Your task to perform on an android device: change timer sound Image 0: 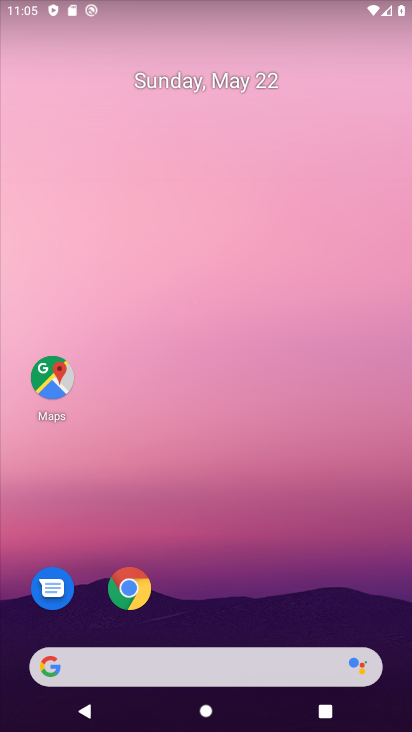
Step 0: drag from (218, 628) to (159, 140)
Your task to perform on an android device: change timer sound Image 1: 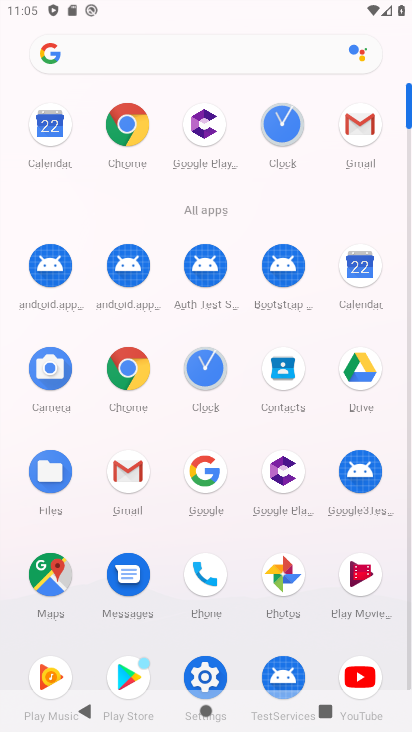
Step 1: click (198, 349)
Your task to perform on an android device: change timer sound Image 2: 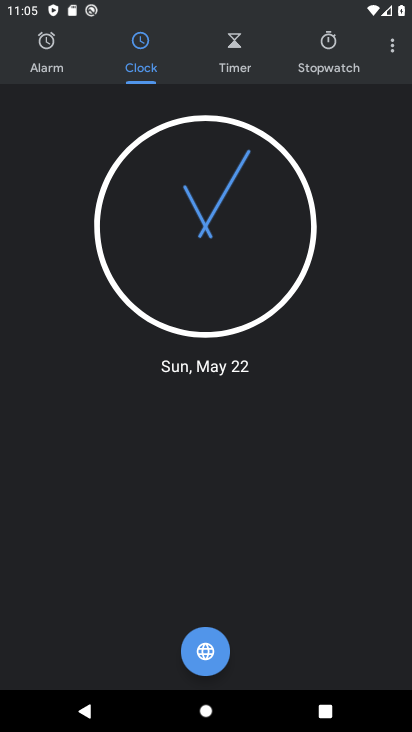
Step 2: click (392, 51)
Your task to perform on an android device: change timer sound Image 3: 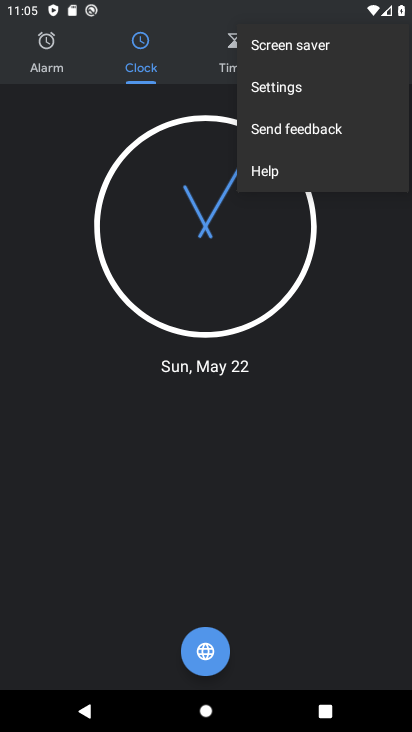
Step 3: click (277, 72)
Your task to perform on an android device: change timer sound Image 4: 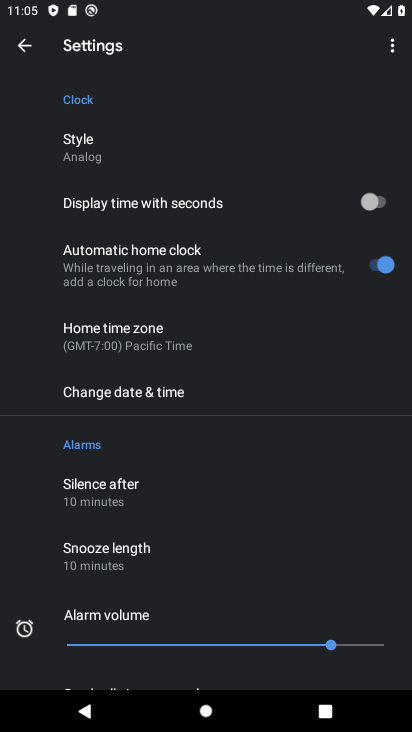
Step 4: drag from (183, 531) to (190, 146)
Your task to perform on an android device: change timer sound Image 5: 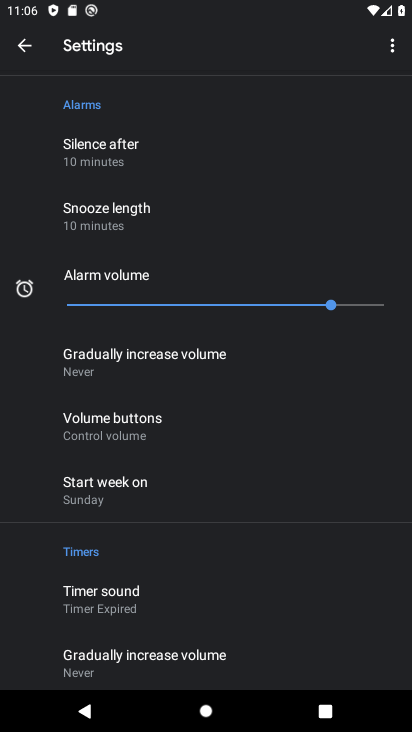
Step 5: click (90, 614)
Your task to perform on an android device: change timer sound Image 6: 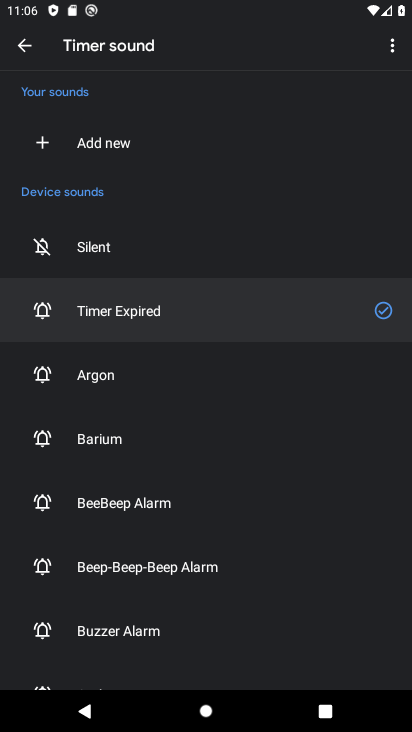
Step 6: click (123, 378)
Your task to perform on an android device: change timer sound Image 7: 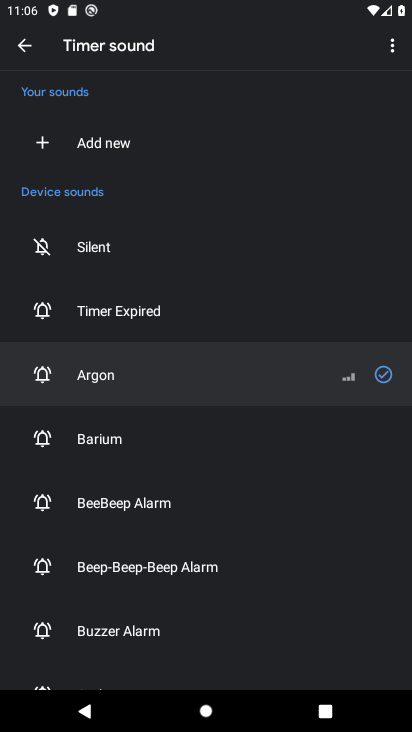
Step 7: task complete